Your task to perform on an android device: Open the calendar and show me this week's events? Image 0: 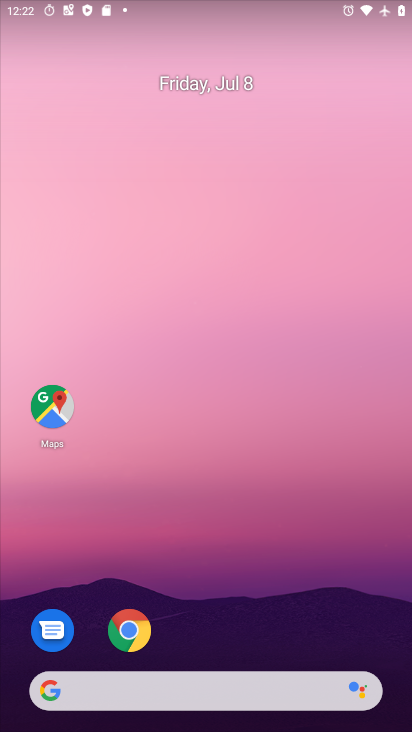
Step 0: drag from (237, 636) to (249, 203)
Your task to perform on an android device: Open the calendar and show me this week's events? Image 1: 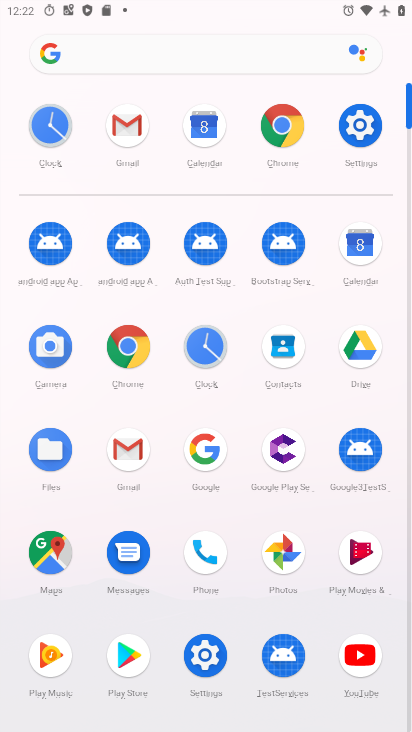
Step 1: click (364, 248)
Your task to perform on an android device: Open the calendar and show me this week's events? Image 2: 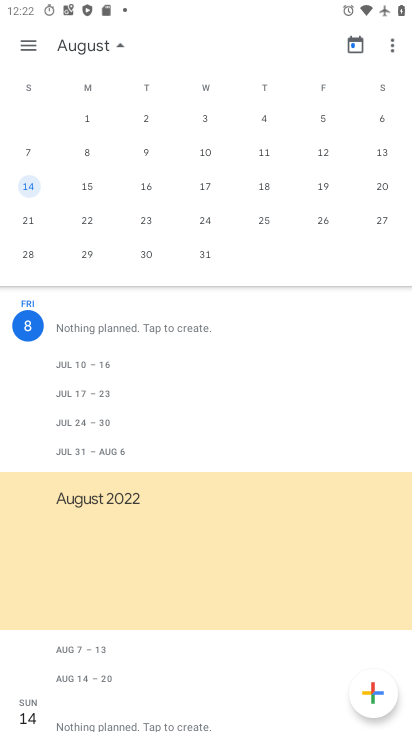
Step 2: drag from (61, 186) to (366, 211)
Your task to perform on an android device: Open the calendar and show me this week's events? Image 3: 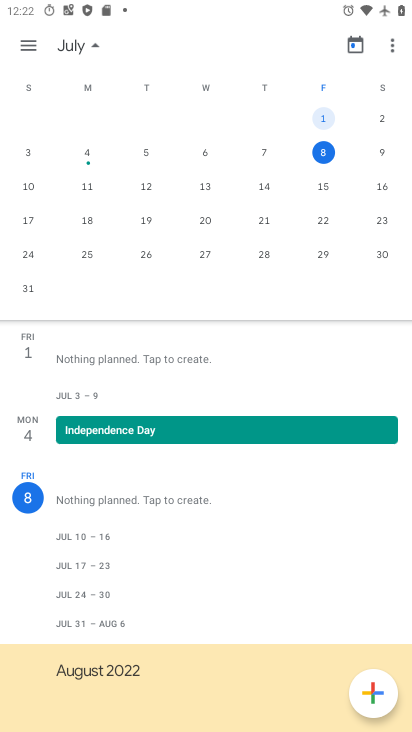
Step 3: click (325, 150)
Your task to perform on an android device: Open the calendar and show me this week's events? Image 4: 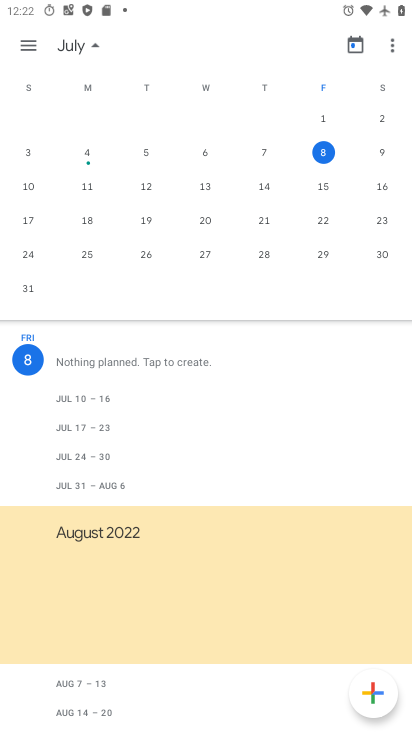
Step 4: task complete